Your task to perform on an android device: see sites visited before in the chrome app Image 0: 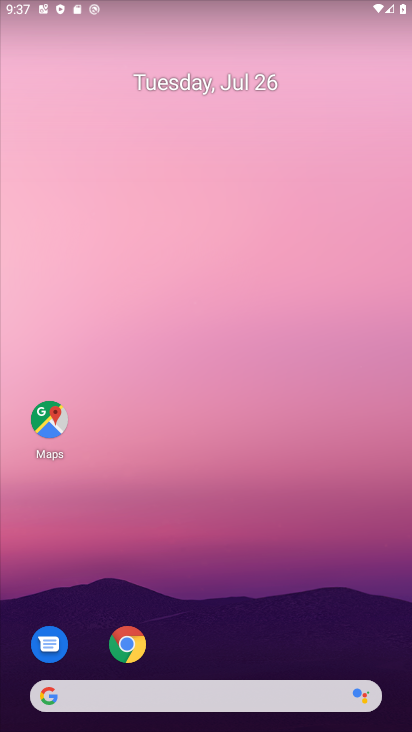
Step 0: drag from (217, 660) to (218, 5)
Your task to perform on an android device: see sites visited before in the chrome app Image 1: 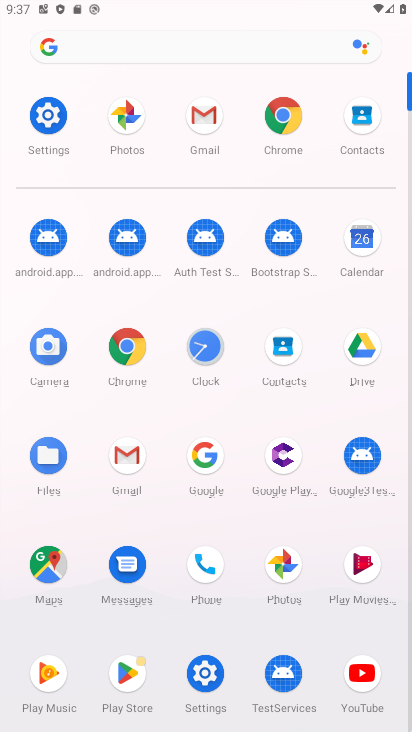
Step 1: click (126, 373)
Your task to perform on an android device: see sites visited before in the chrome app Image 2: 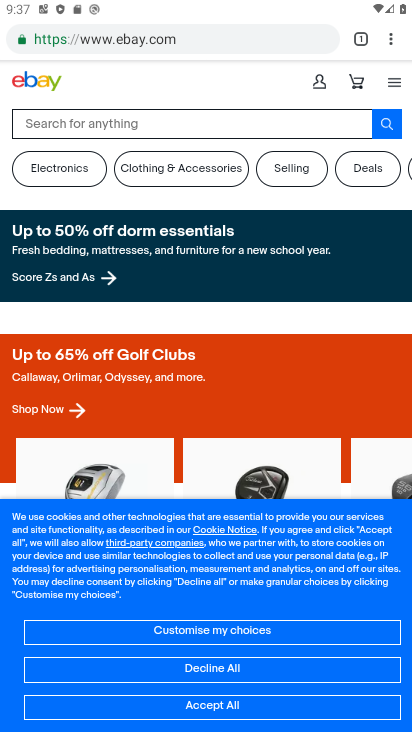
Step 2: click (392, 44)
Your task to perform on an android device: see sites visited before in the chrome app Image 3: 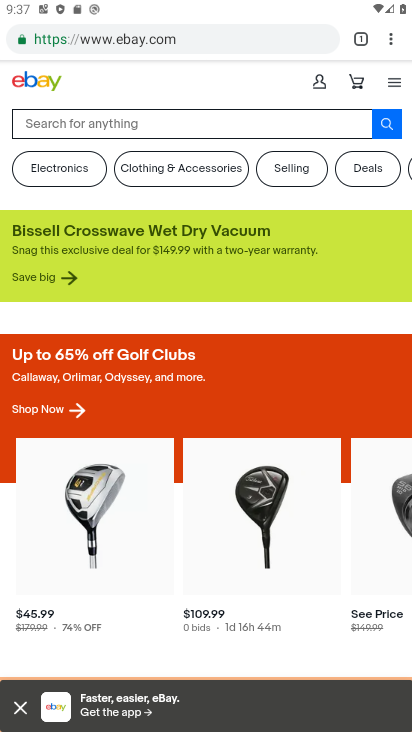
Step 3: click (387, 44)
Your task to perform on an android device: see sites visited before in the chrome app Image 4: 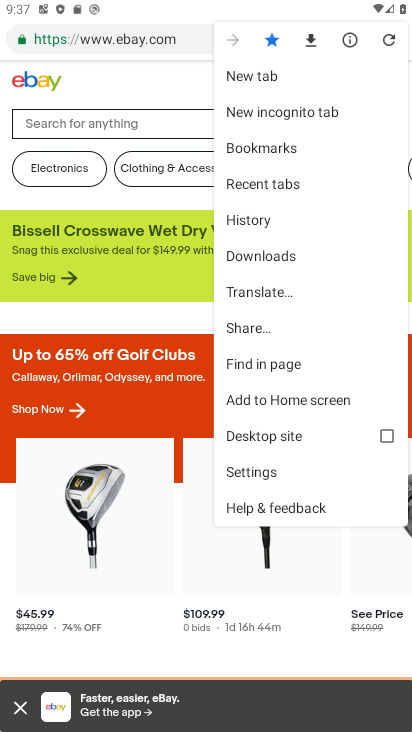
Step 4: click (261, 220)
Your task to perform on an android device: see sites visited before in the chrome app Image 5: 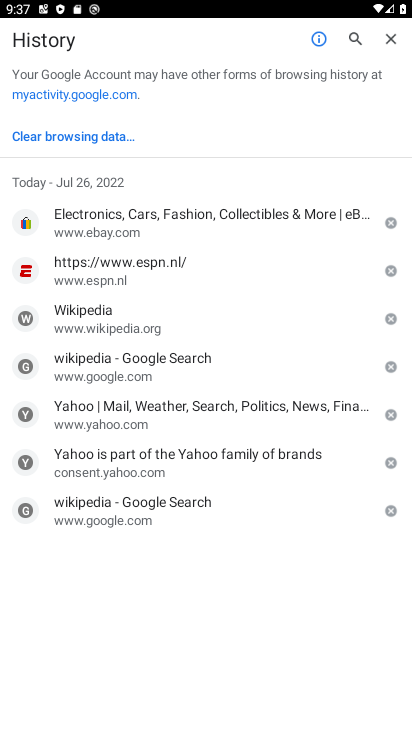
Step 5: task complete